Your task to perform on an android device: toggle sleep mode Image 0: 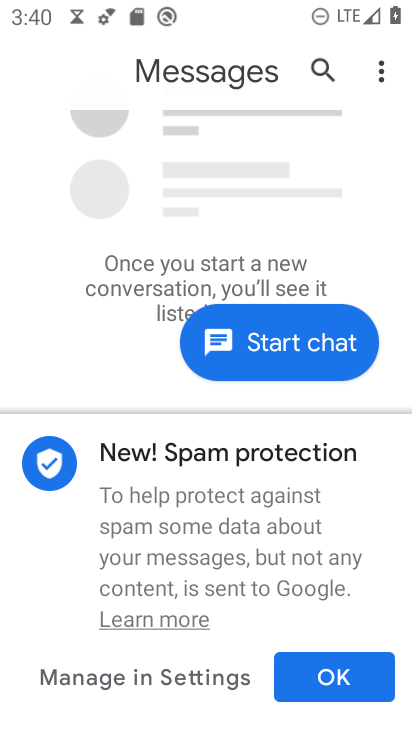
Step 0: press home button
Your task to perform on an android device: toggle sleep mode Image 1: 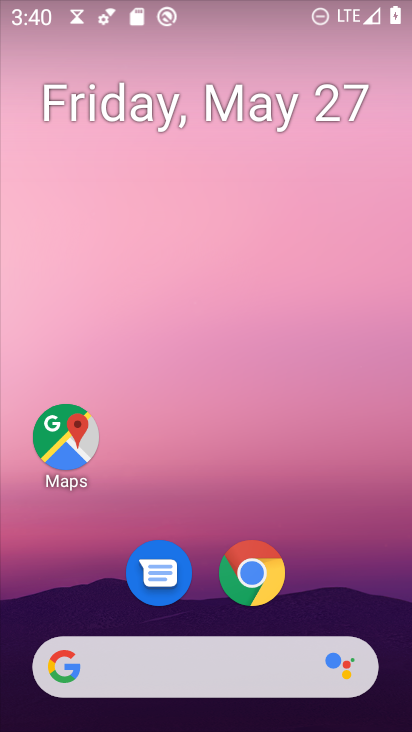
Step 1: drag from (319, 555) to (327, 10)
Your task to perform on an android device: toggle sleep mode Image 2: 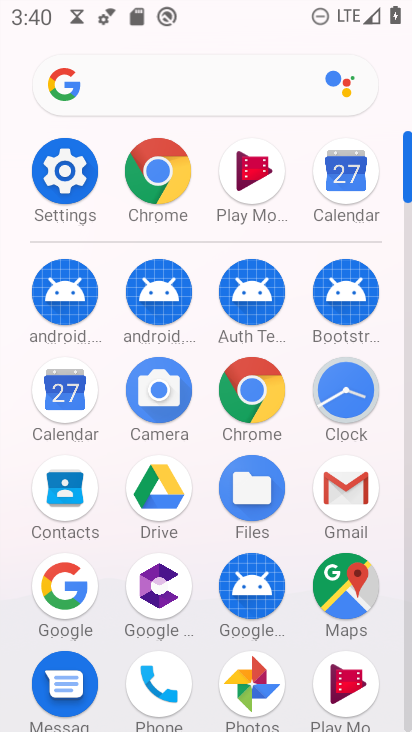
Step 2: click (62, 177)
Your task to perform on an android device: toggle sleep mode Image 3: 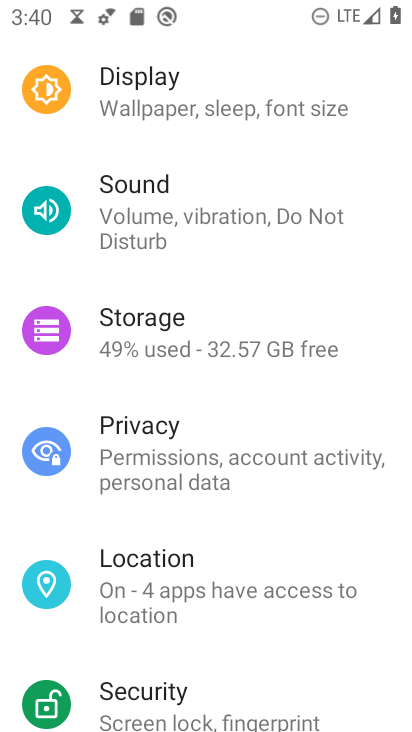
Step 3: click (256, 98)
Your task to perform on an android device: toggle sleep mode Image 4: 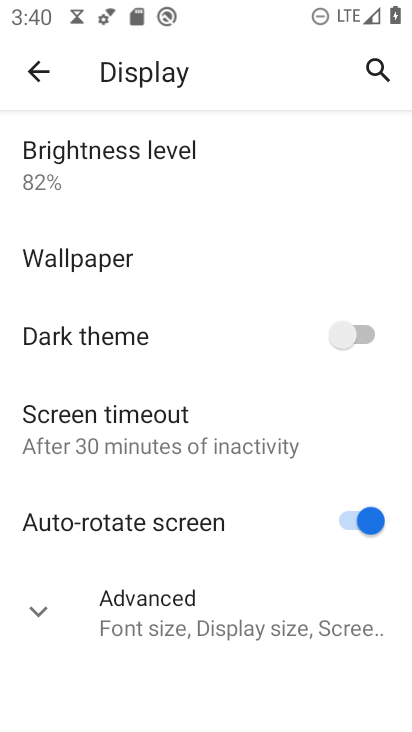
Step 4: click (117, 619)
Your task to perform on an android device: toggle sleep mode Image 5: 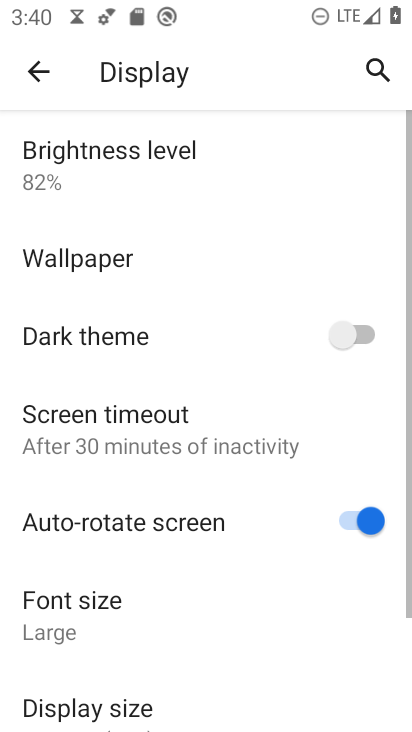
Step 5: task complete